Your task to perform on an android device: Open the stopwatch Image 0: 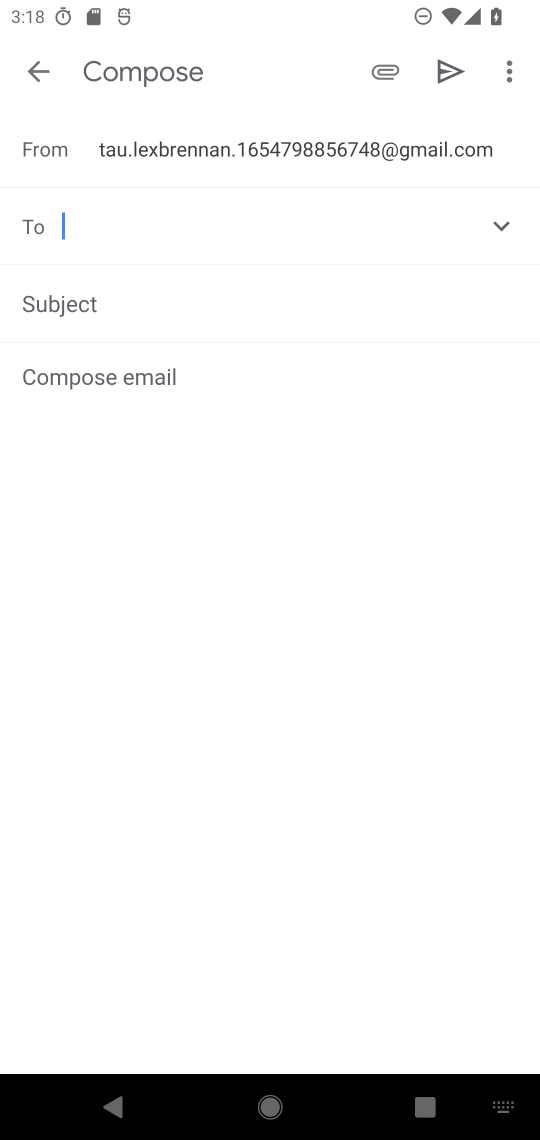
Step 0: press home button
Your task to perform on an android device: Open the stopwatch Image 1: 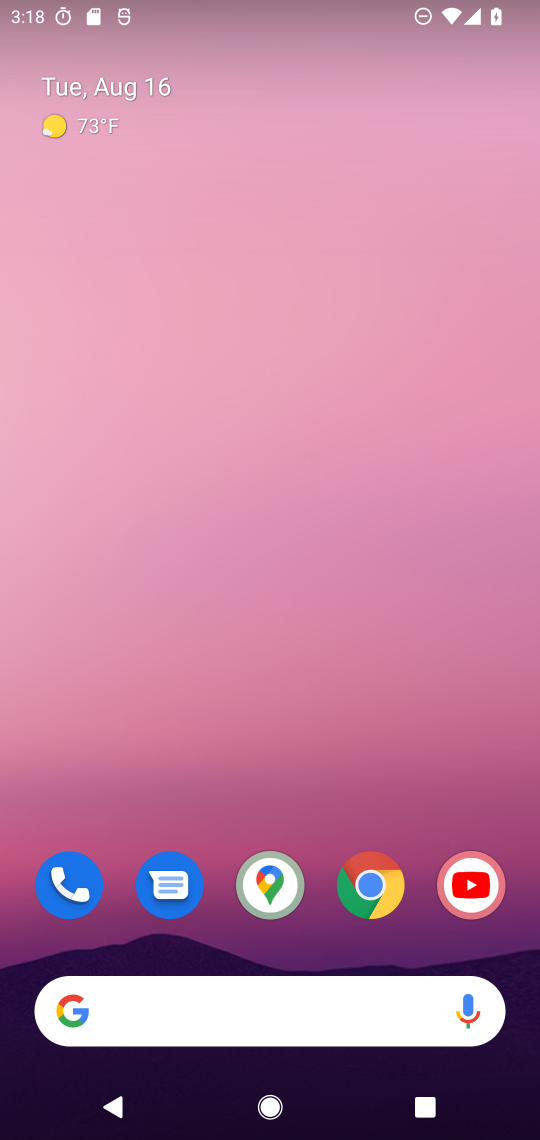
Step 1: drag from (284, 763) to (296, 148)
Your task to perform on an android device: Open the stopwatch Image 2: 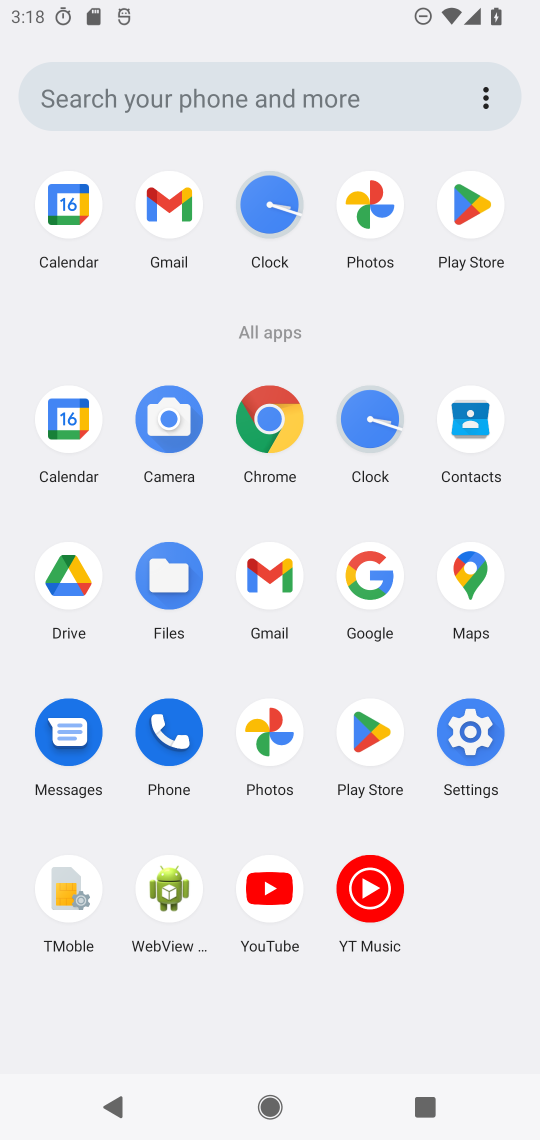
Step 2: click (369, 425)
Your task to perform on an android device: Open the stopwatch Image 3: 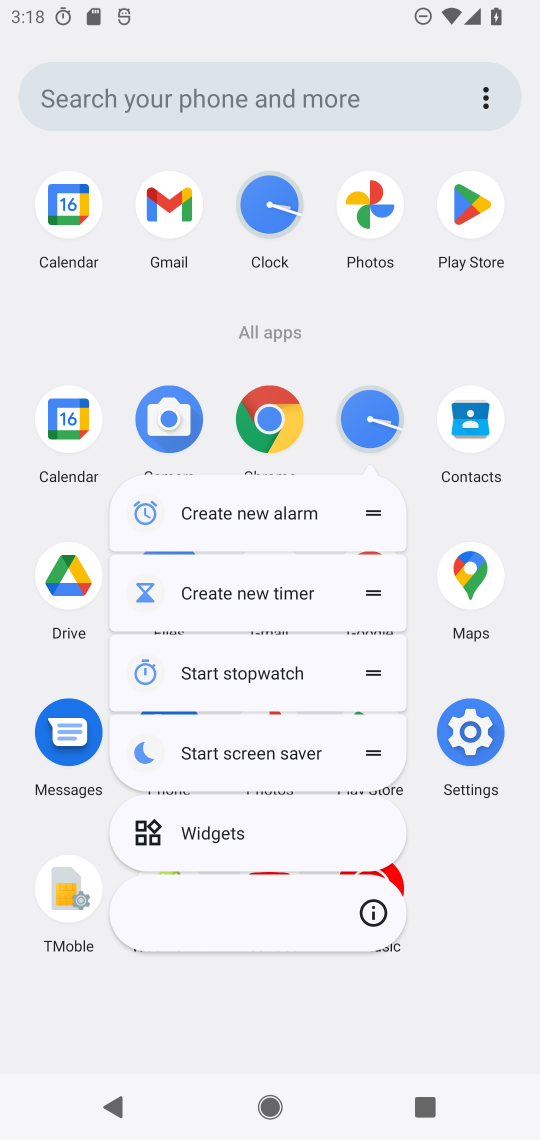
Step 3: click (369, 425)
Your task to perform on an android device: Open the stopwatch Image 4: 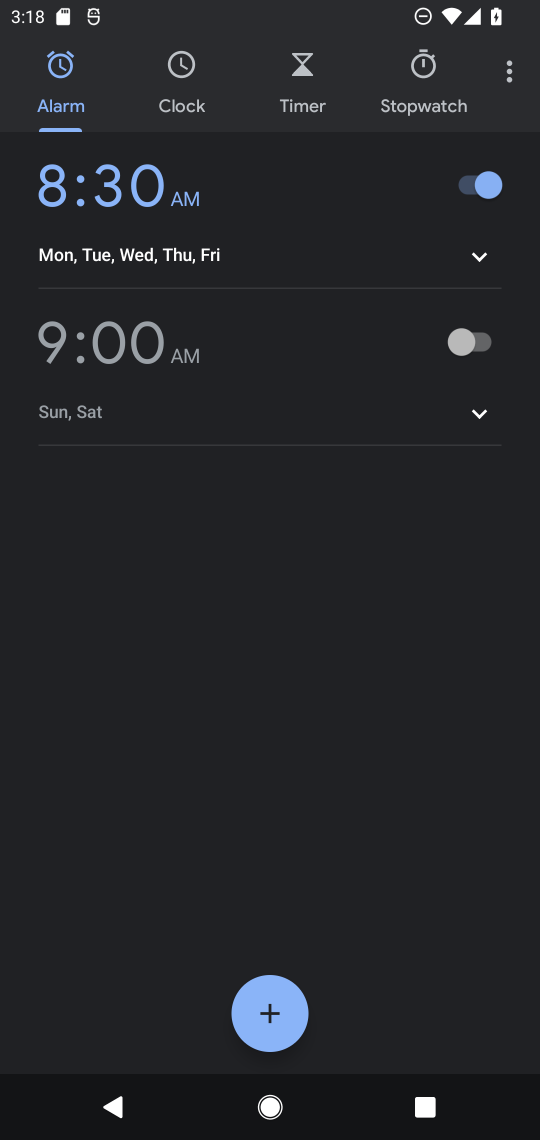
Step 4: click (420, 105)
Your task to perform on an android device: Open the stopwatch Image 5: 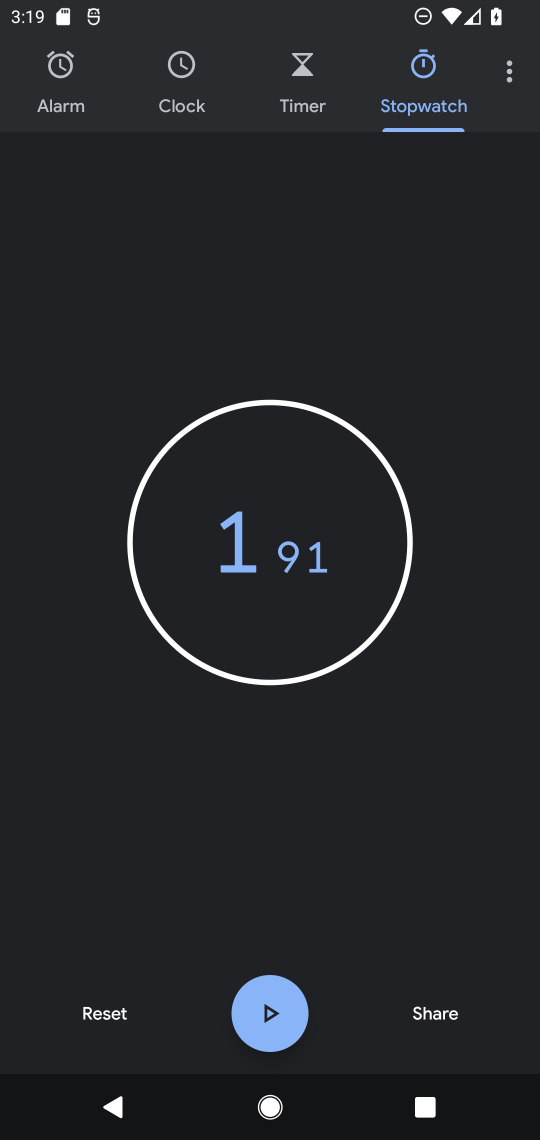
Step 5: task complete